Your task to perform on an android device: Go to location settings Image 0: 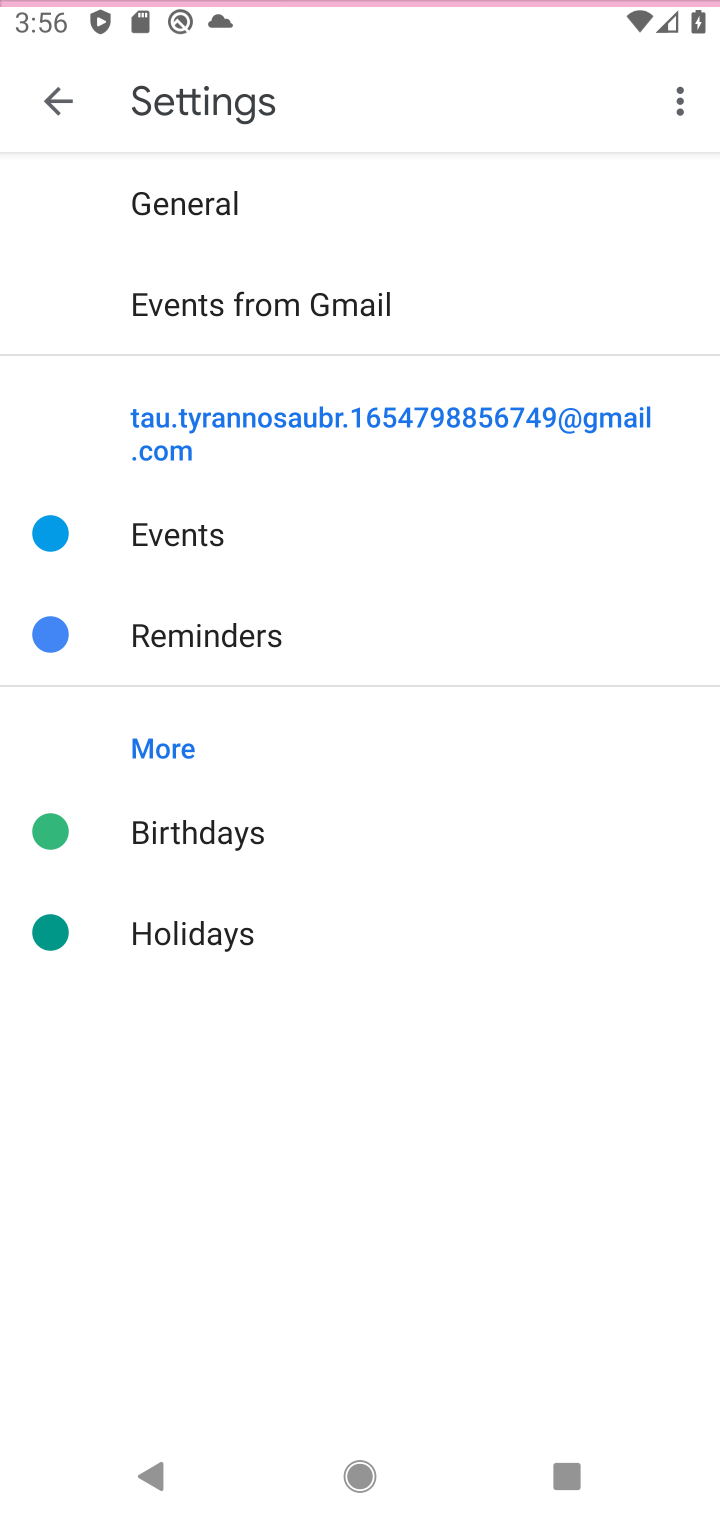
Step 0: press home button
Your task to perform on an android device: Go to location settings Image 1: 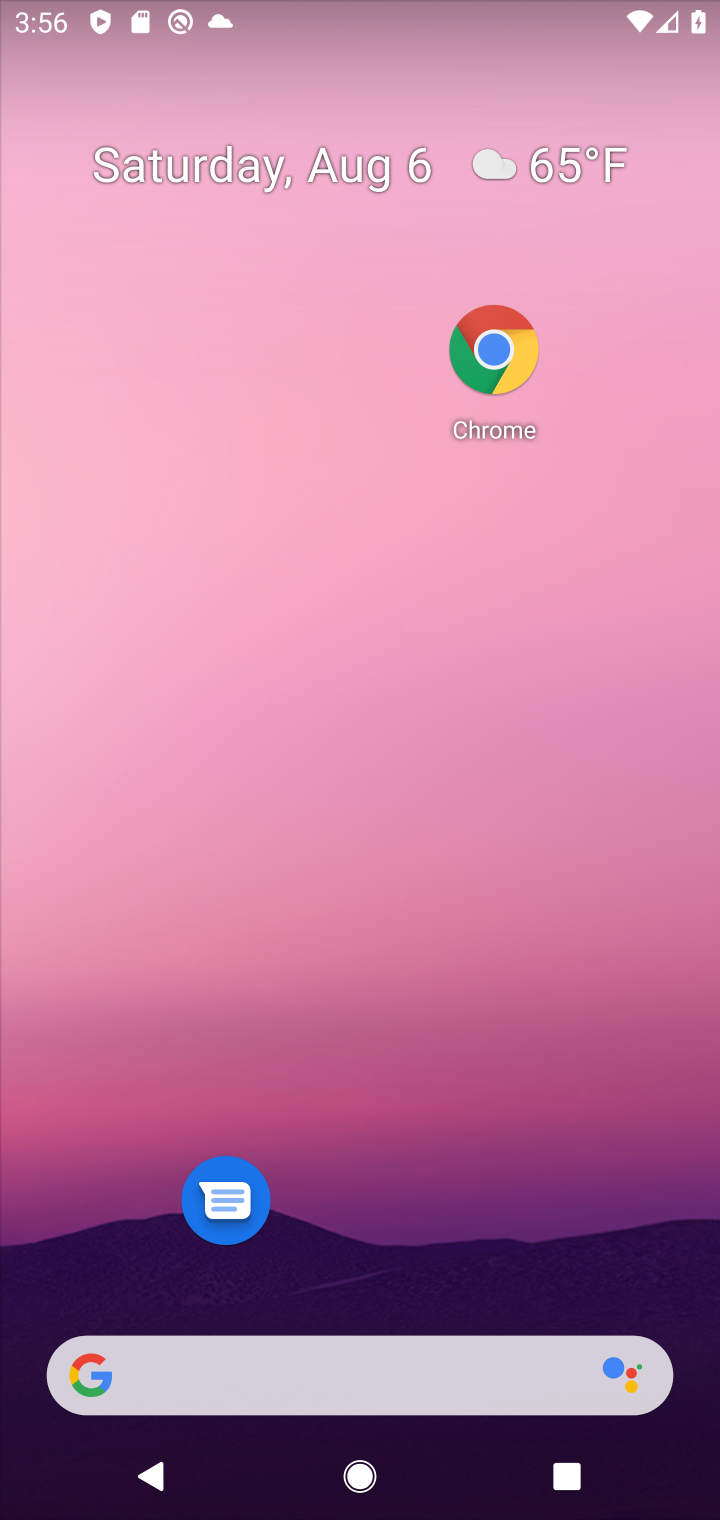
Step 1: drag from (351, 1309) to (346, 620)
Your task to perform on an android device: Go to location settings Image 2: 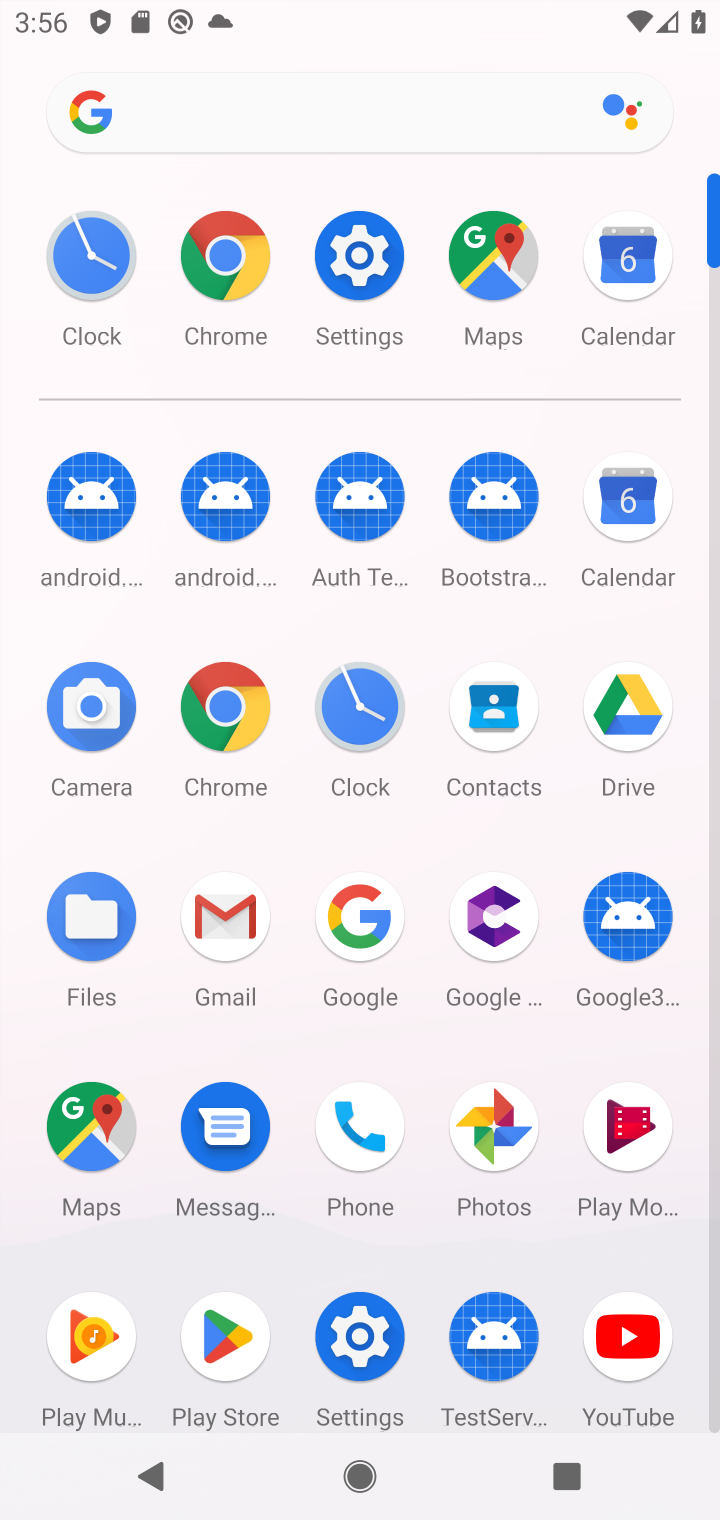
Step 2: click (367, 1352)
Your task to perform on an android device: Go to location settings Image 3: 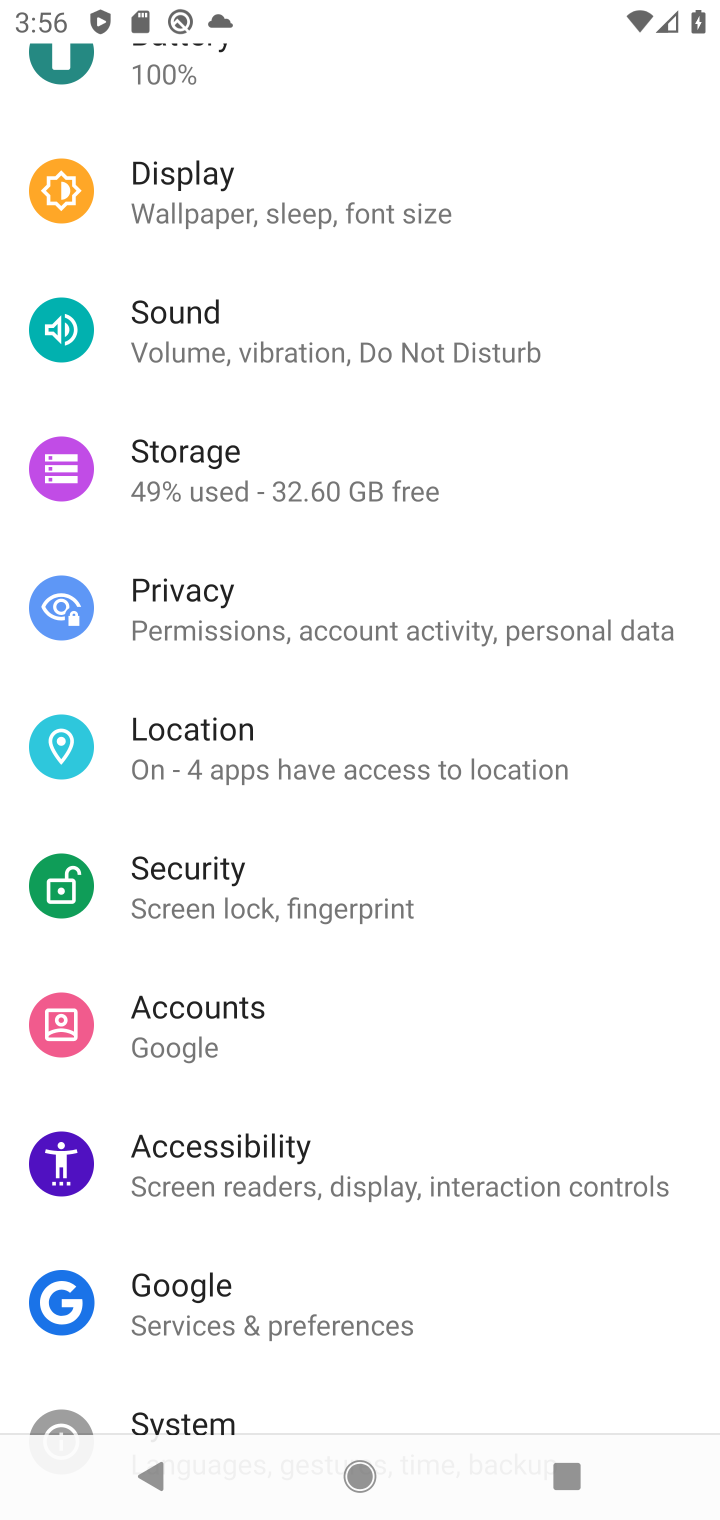
Step 3: click (241, 755)
Your task to perform on an android device: Go to location settings Image 4: 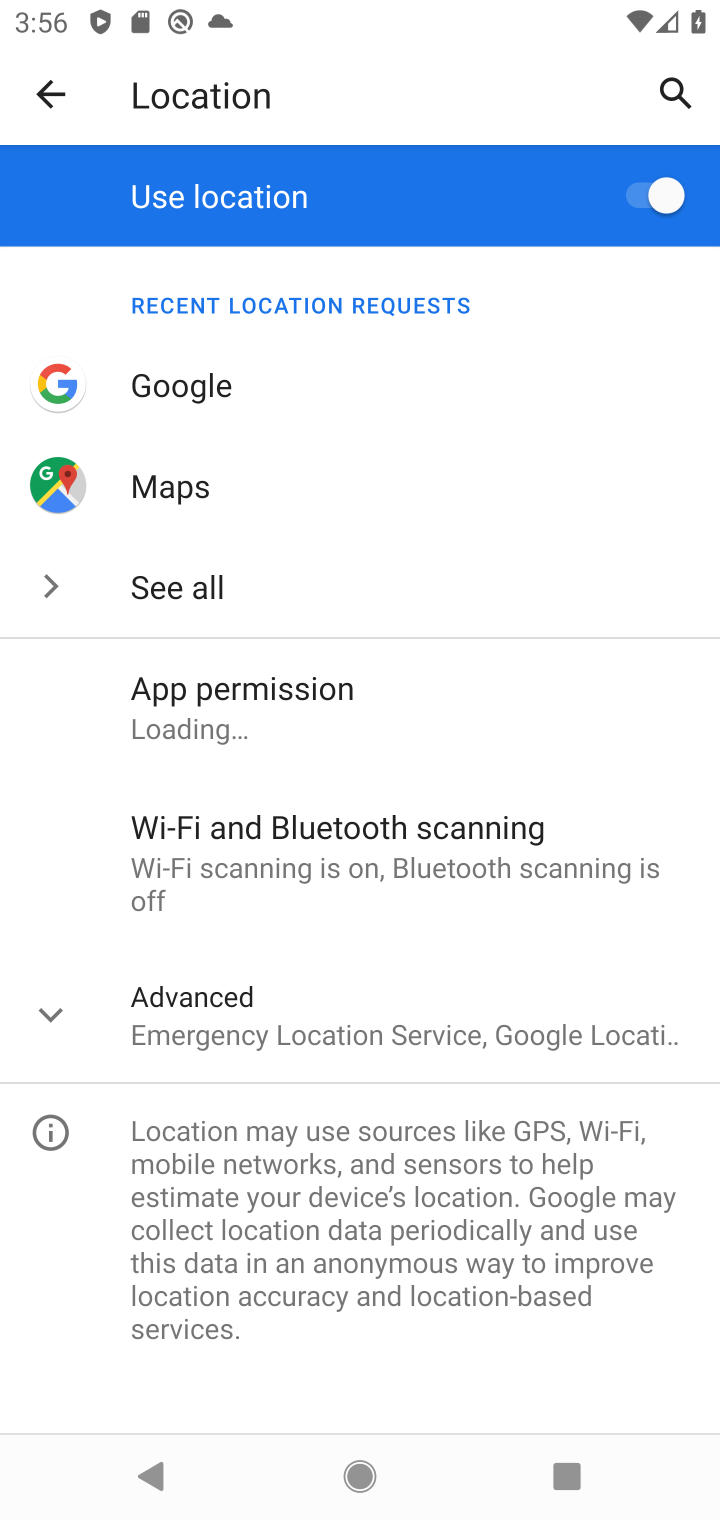
Step 4: click (194, 1033)
Your task to perform on an android device: Go to location settings Image 5: 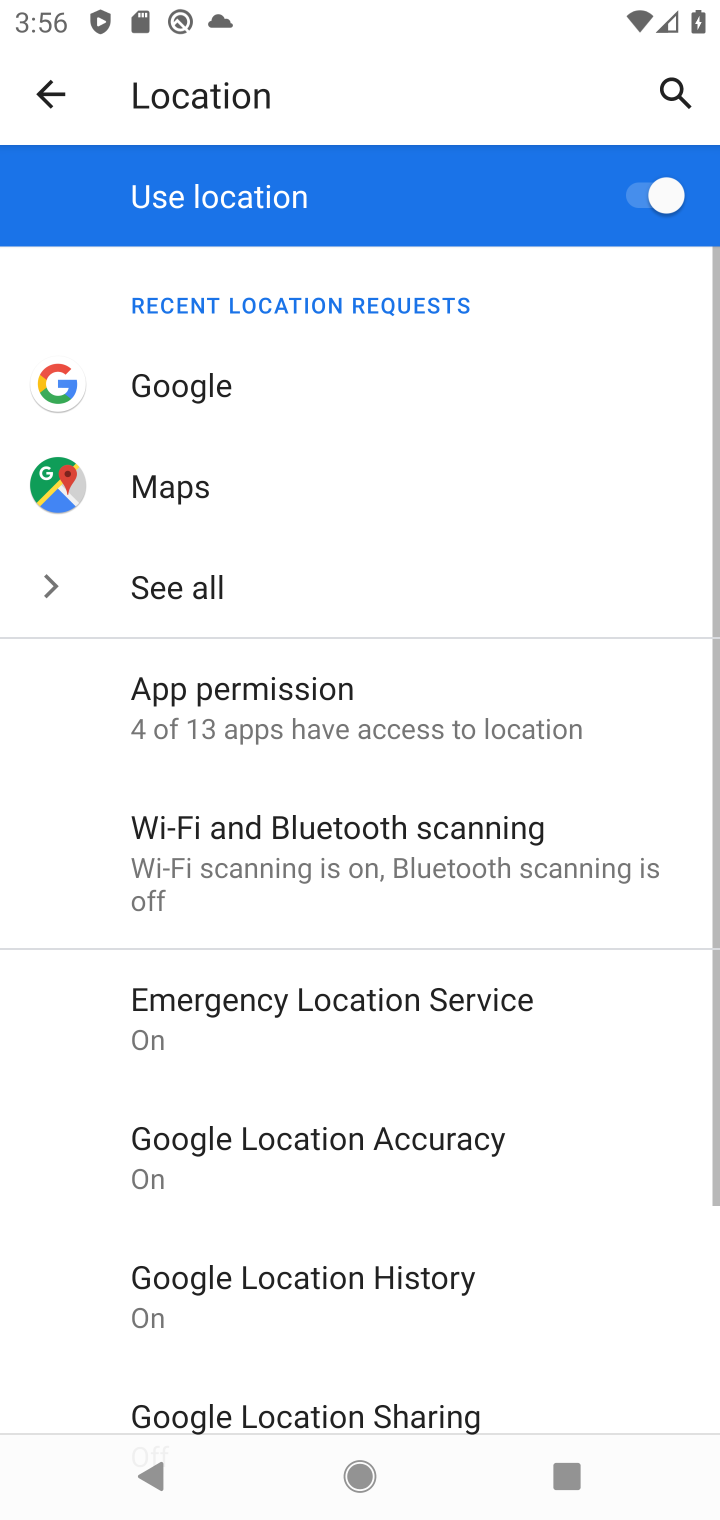
Step 5: task complete